Your task to perform on an android device: check google app version Image 0: 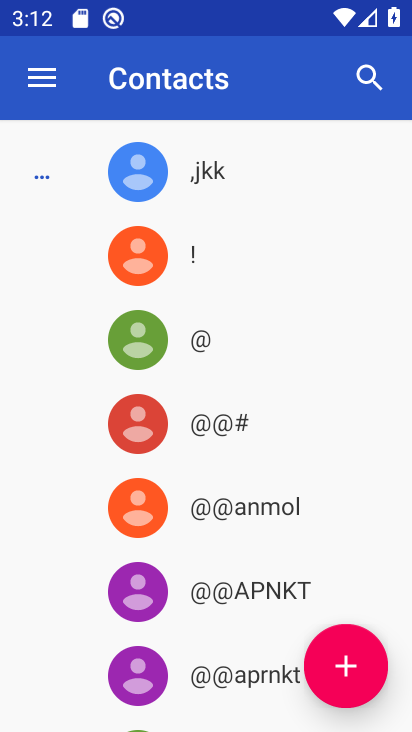
Step 0: press back button
Your task to perform on an android device: check google app version Image 1: 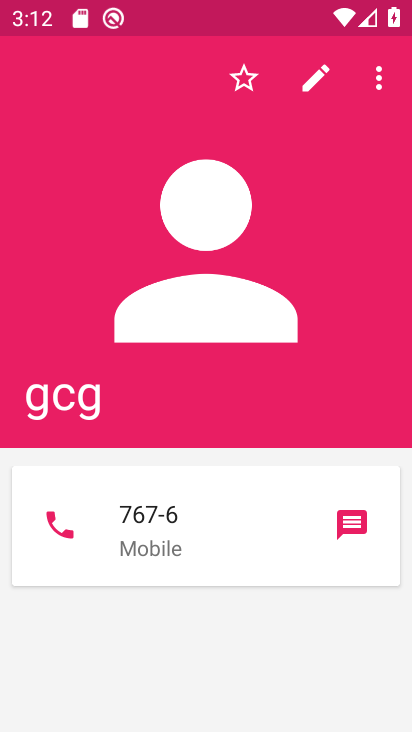
Step 1: press back button
Your task to perform on an android device: check google app version Image 2: 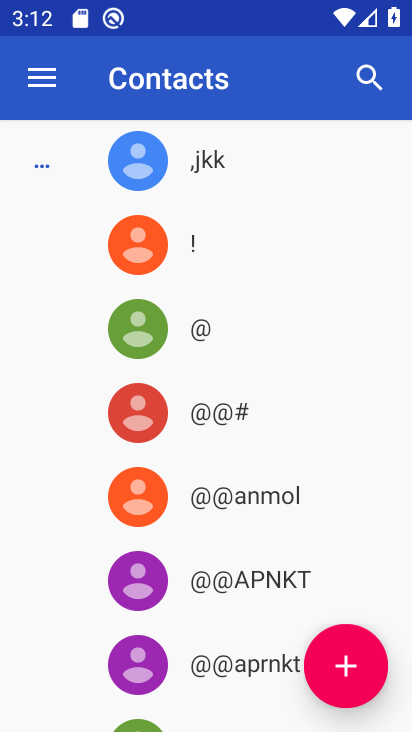
Step 2: press back button
Your task to perform on an android device: check google app version Image 3: 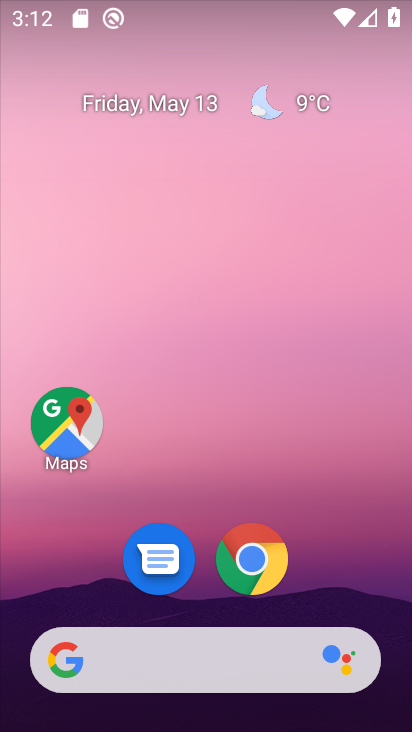
Step 3: drag from (218, 579) to (269, 95)
Your task to perform on an android device: check google app version Image 4: 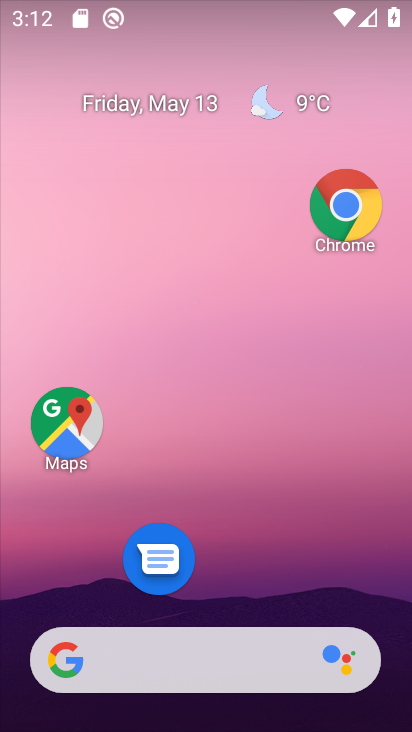
Step 4: drag from (221, 531) to (232, 202)
Your task to perform on an android device: check google app version Image 5: 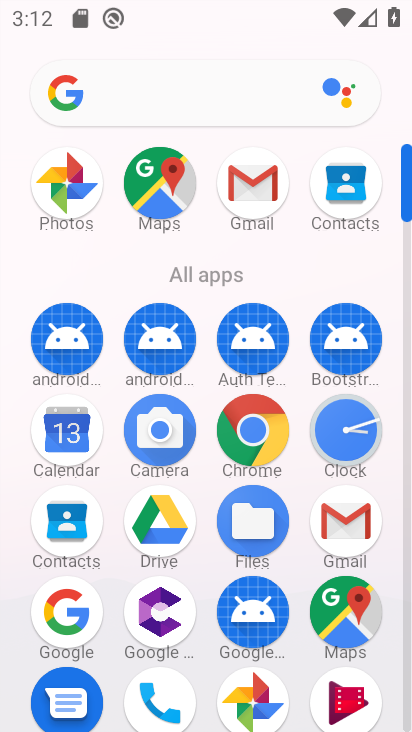
Step 5: click (63, 621)
Your task to perform on an android device: check google app version Image 6: 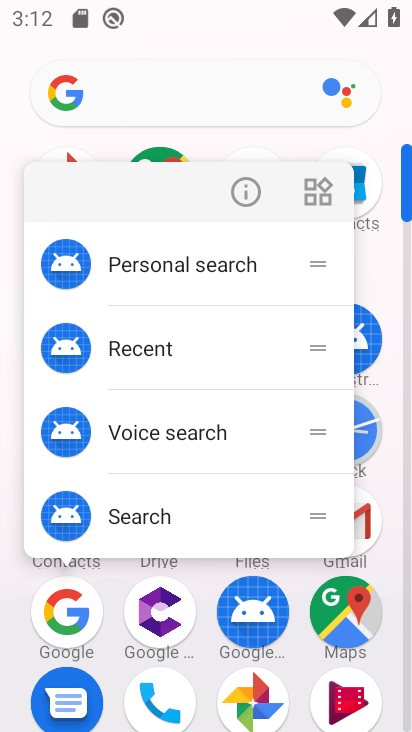
Step 6: click (242, 185)
Your task to perform on an android device: check google app version Image 7: 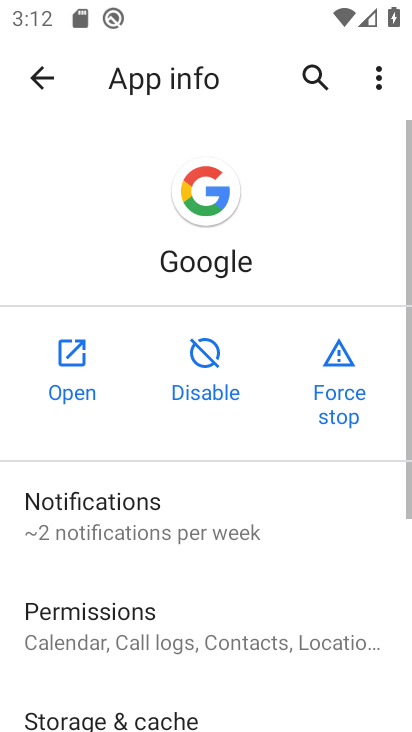
Step 7: drag from (162, 681) to (278, 85)
Your task to perform on an android device: check google app version Image 8: 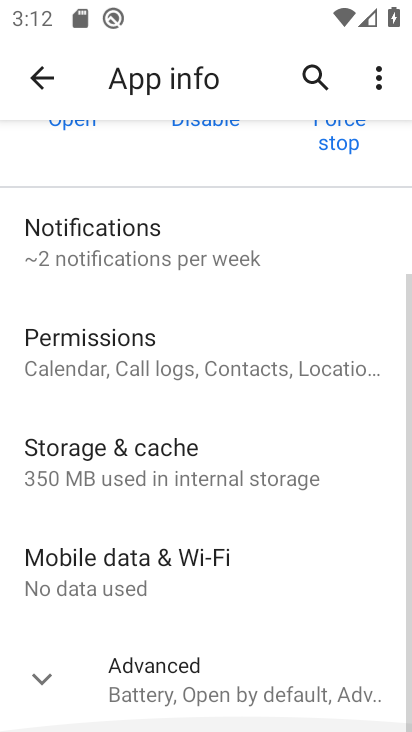
Step 8: drag from (171, 621) to (250, 124)
Your task to perform on an android device: check google app version Image 9: 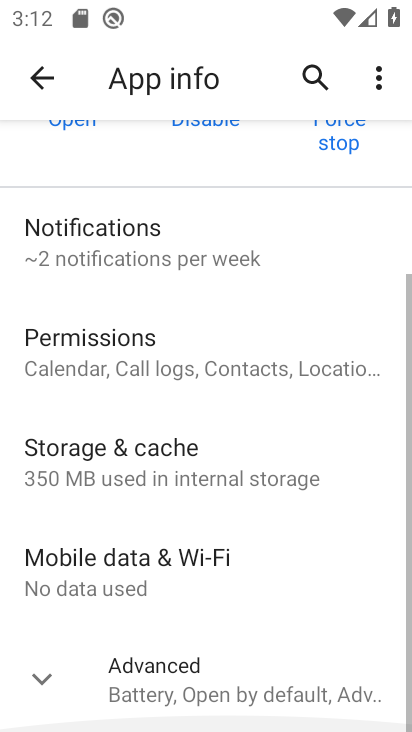
Step 9: click (185, 657)
Your task to perform on an android device: check google app version Image 10: 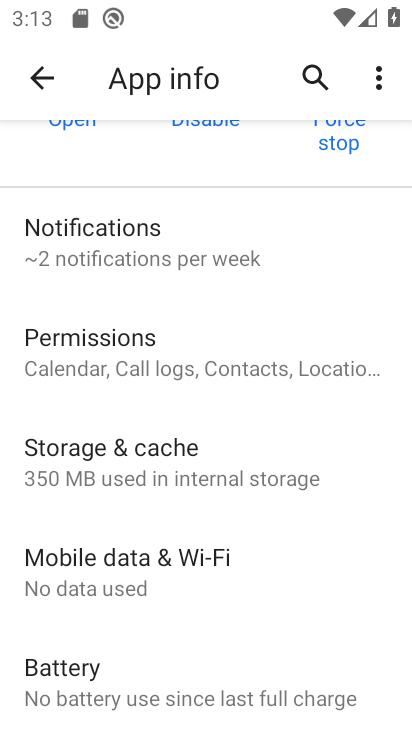
Step 10: task complete